Your task to perform on an android device: Go to accessibility settings Image 0: 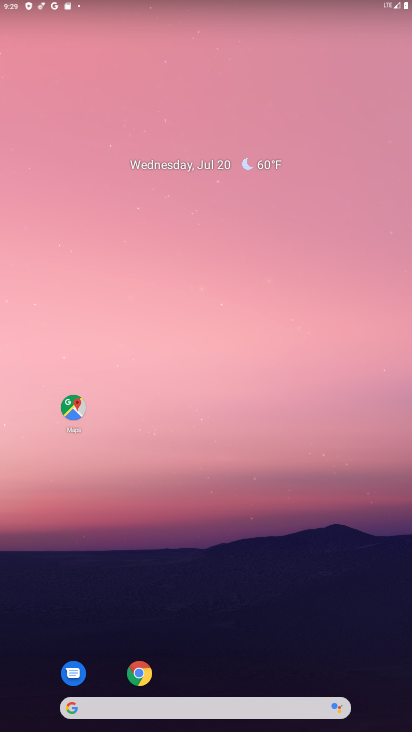
Step 0: drag from (177, 545) to (166, 158)
Your task to perform on an android device: Go to accessibility settings Image 1: 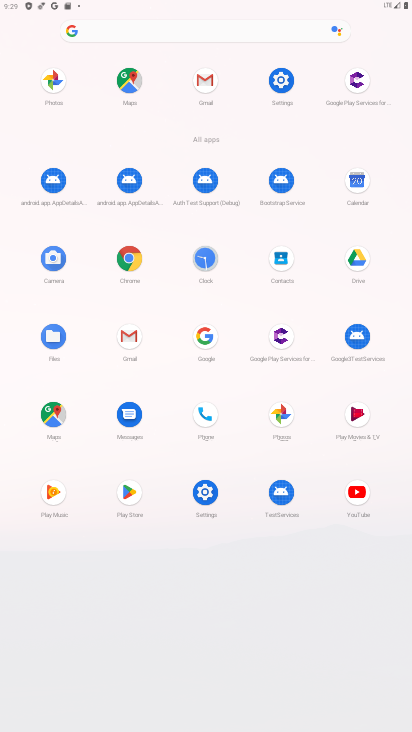
Step 1: click (273, 96)
Your task to perform on an android device: Go to accessibility settings Image 2: 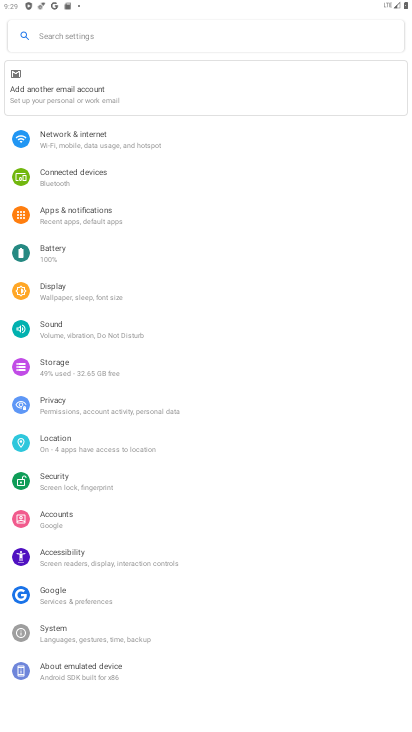
Step 2: click (79, 559)
Your task to perform on an android device: Go to accessibility settings Image 3: 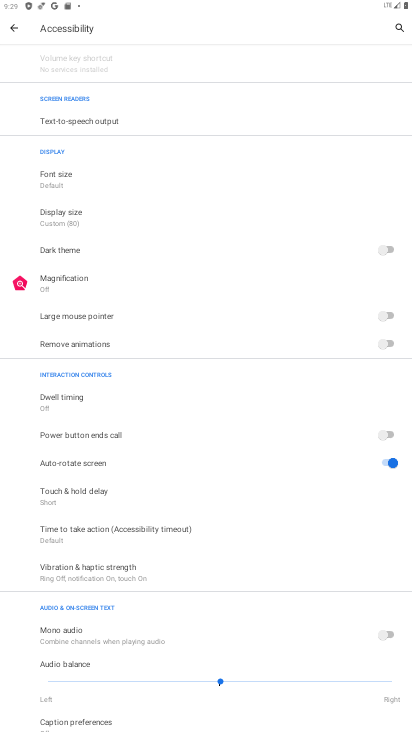
Step 3: task complete